Your task to perform on an android device: Go to wifi settings Image 0: 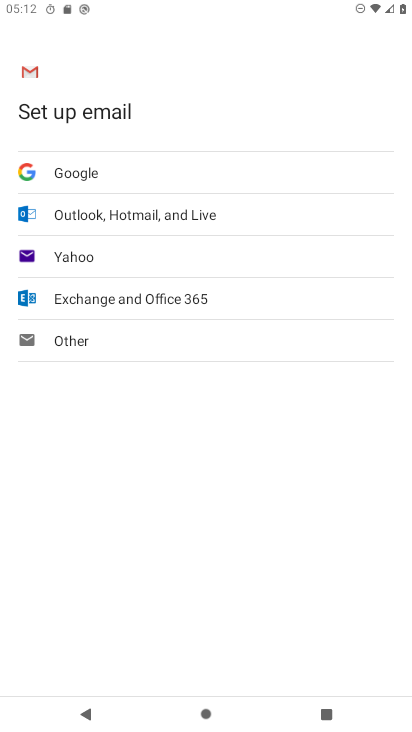
Step 0: press home button
Your task to perform on an android device: Go to wifi settings Image 1: 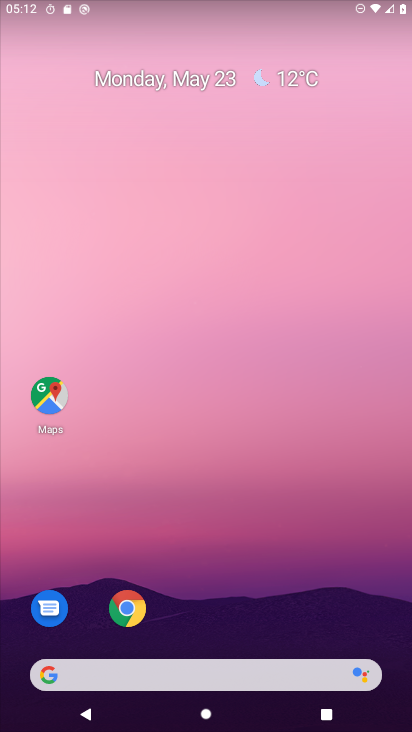
Step 1: drag from (306, 433) to (224, 4)
Your task to perform on an android device: Go to wifi settings Image 2: 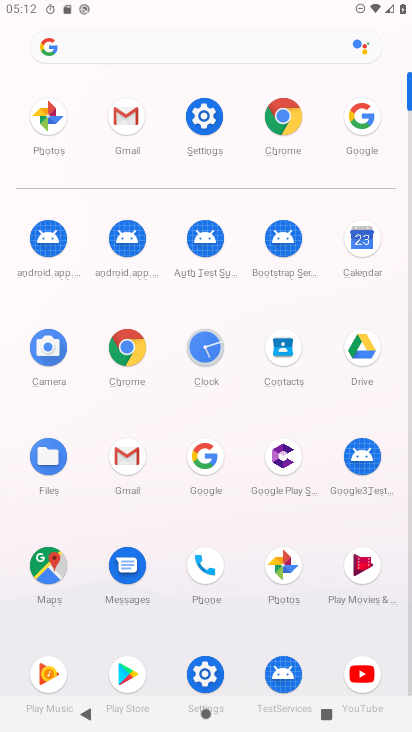
Step 2: click (197, 131)
Your task to perform on an android device: Go to wifi settings Image 3: 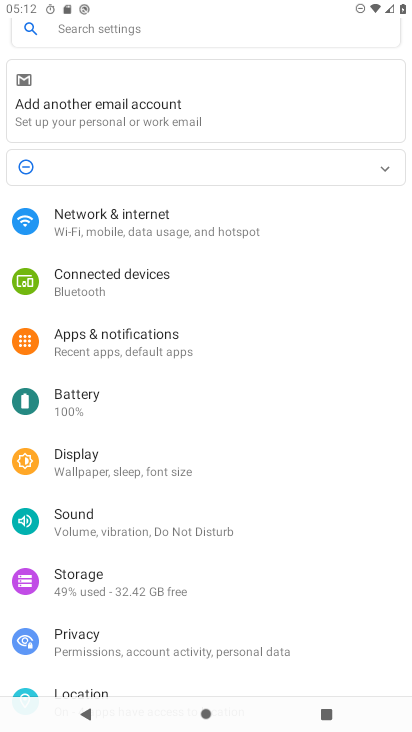
Step 3: click (124, 235)
Your task to perform on an android device: Go to wifi settings Image 4: 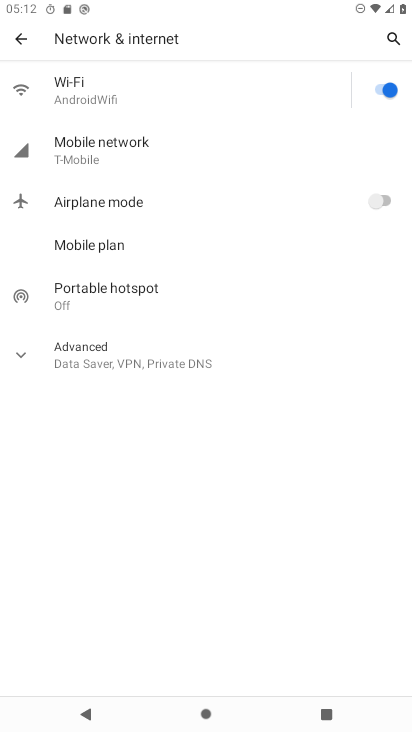
Step 4: click (195, 87)
Your task to perform on an android device: Go to wifi settings Image 5: 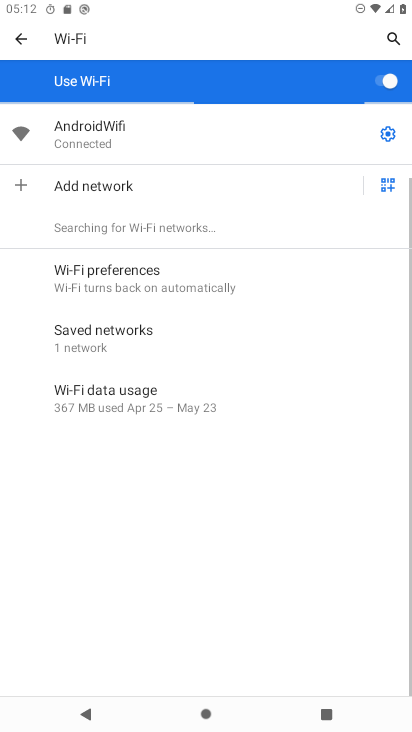
Step 5: task complete